Your task to perform on an android device: Open the map Image 0: 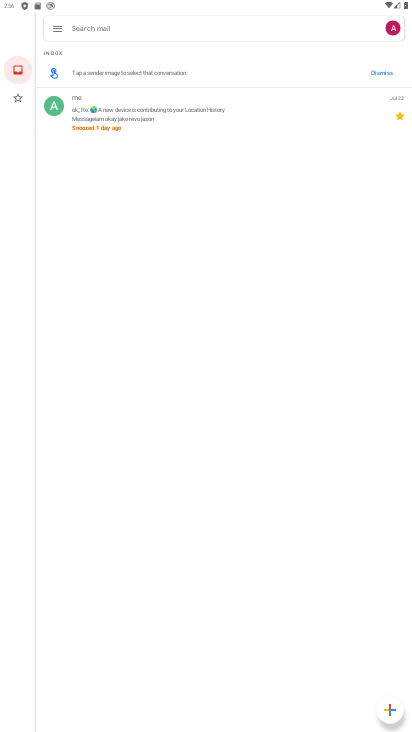
Step 0: press home button
Your task to perform on an android device: Open the map Image 1: 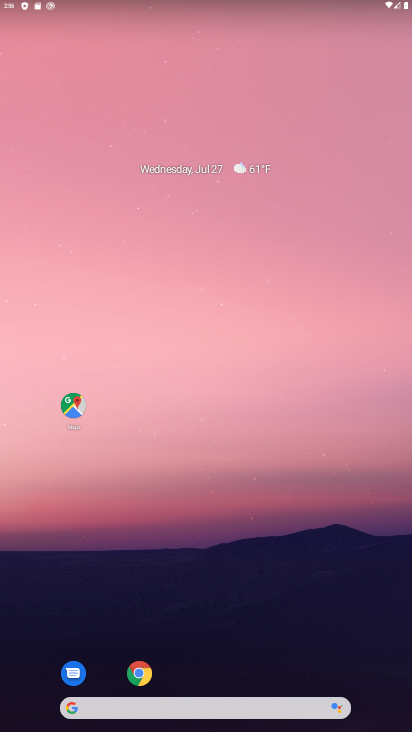
Step 1: click (71, 406)
Your task to perform on an android device: Open the map Image 2: 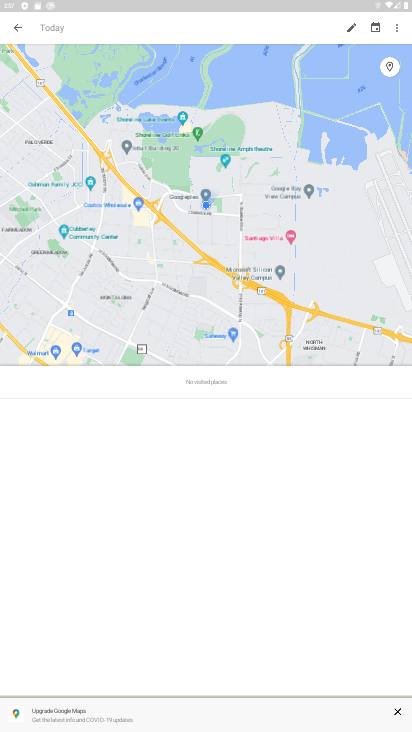
Step 2: task complete